Your task to perform on an android device: Go to sound settings Image 0: 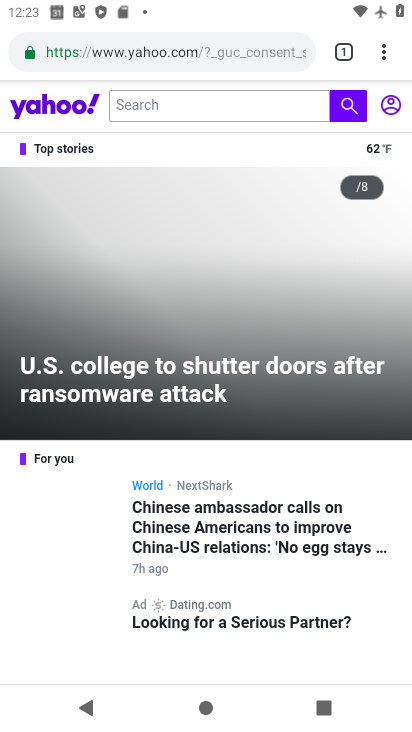
Step 0: press back button
Your task to perform on an android device: Go to sound settings Image 1: 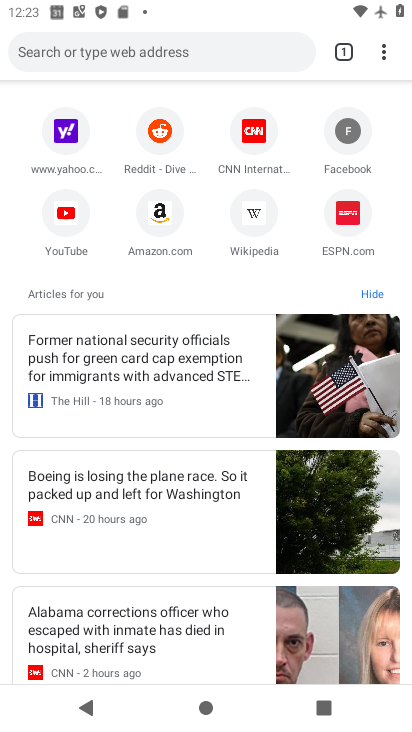
Step 1: press home button
Your task to perform on an android device: Go to sound settings Image 2: 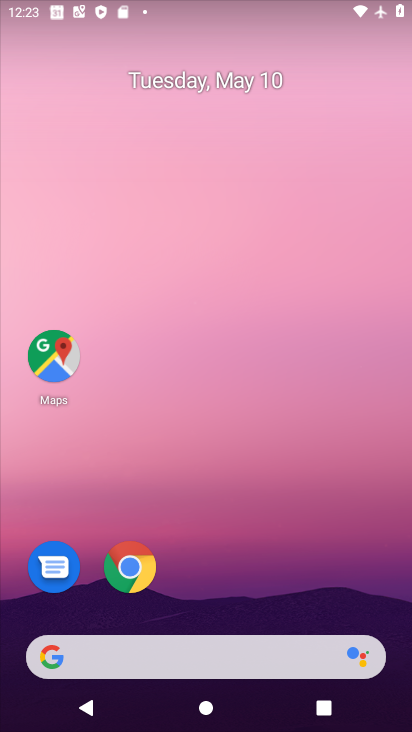
Step 2: drag from (404, 630) to (236, 114)
Your task to perform on an android device: Go to sound settings Image 3: 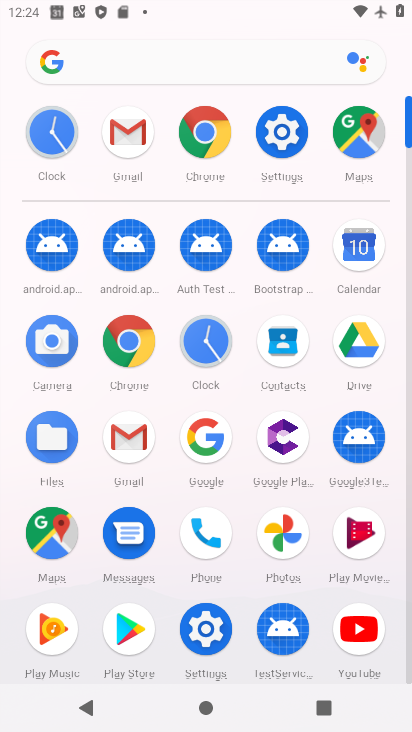
Step 3: click (198, 647)
Your task to perform on an android device: Go to sound settings Image 4: 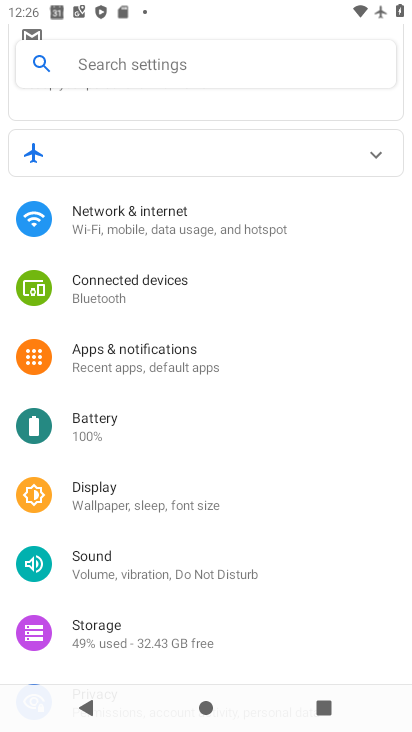
Step 4: click (111, 571)
Your task to perform on an android device: Go to sound settings Image 5: 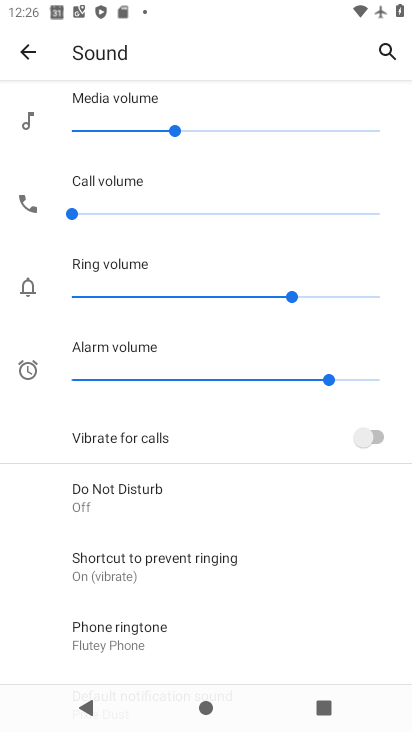
Step 5: task complete